Your task to perform on an android device: turn off smart reply in the gmail app Image 0: 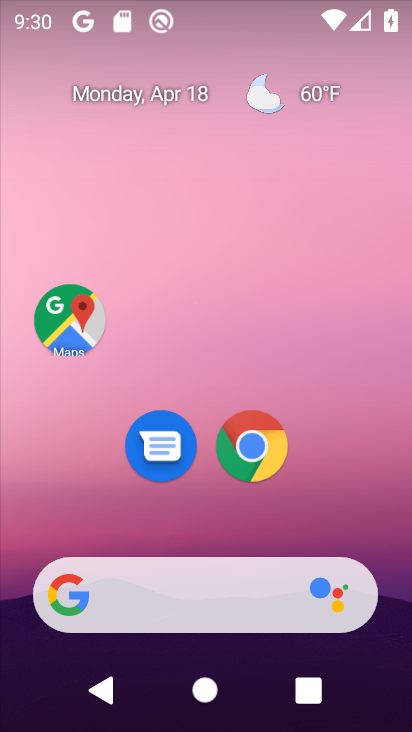
Step 0: drag from (345, 458) to (326, 115)
Your task to perform on an android device: turn off smart reply in the gmail app Image 1: 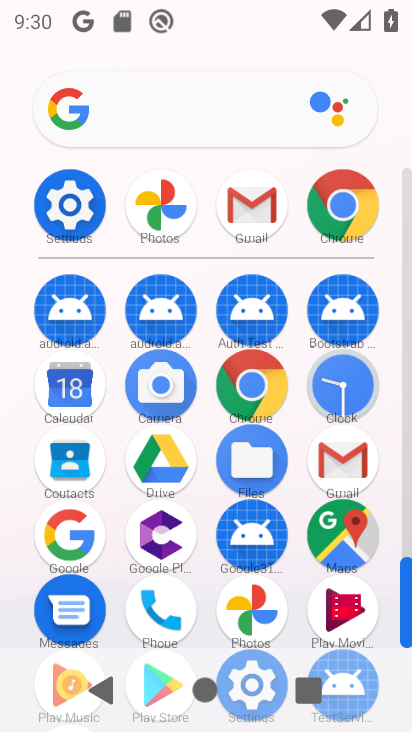
Step 1: click (347, 465)
Your task to perform on an android device: turn off smart reply in the gmail app Image 2: 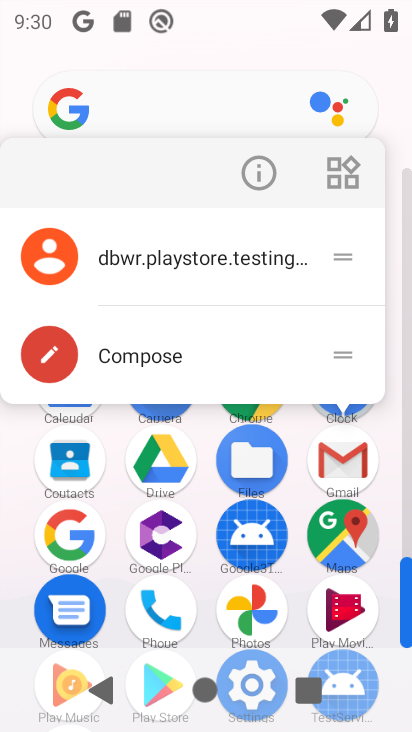
Step 2: click (336, 458)
Your task to perform on an android device: turn off smart reply in the gmail app Image 3: 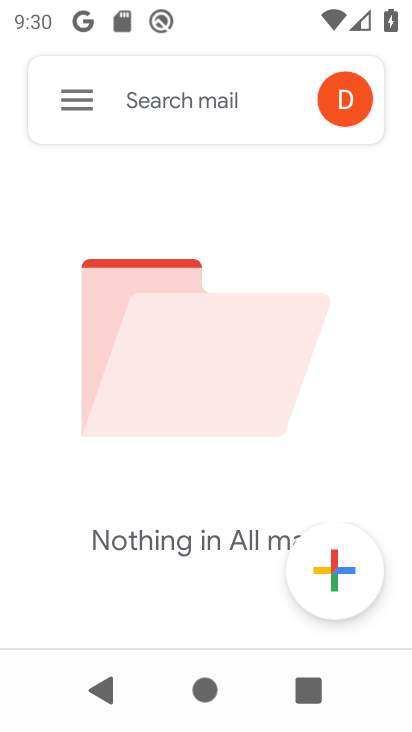
Step 3: click (69, 99)
Your task to perform on an android device: turn off smart reply in the gmail app Image 4: 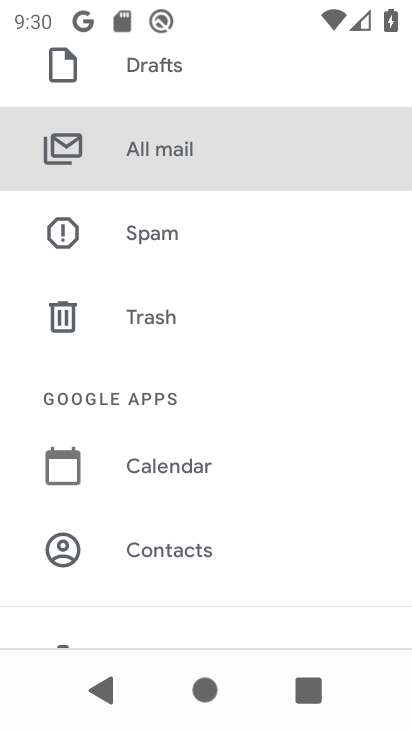
Step 4: drag from (337, 259) to (339, 527)
Your task to perform on an android device: turn off smart reply in the gmail app Image 5: 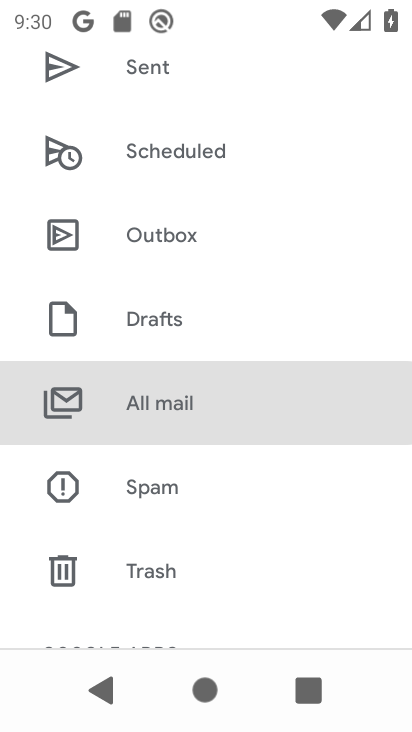
Step 5: drag from (337, 550) to (332, 347)
Your task to perform on an android device: turn off smart reply in the gmail app Image 6: 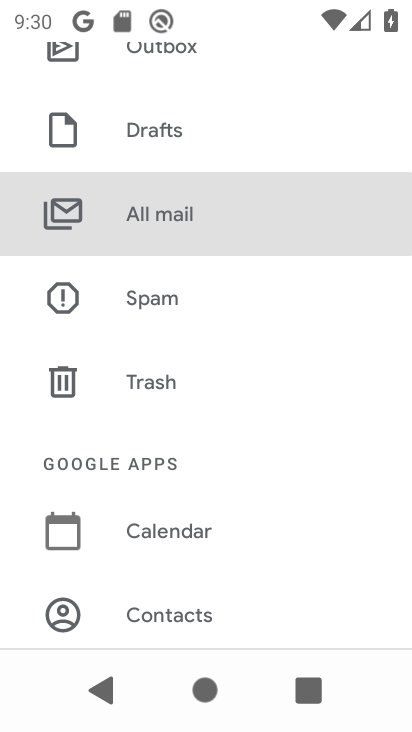
Step 6: drag from (334, 540) to (337, 322)
Your task to perform on an android device: turn off smart reply in the gmail app Image 7: 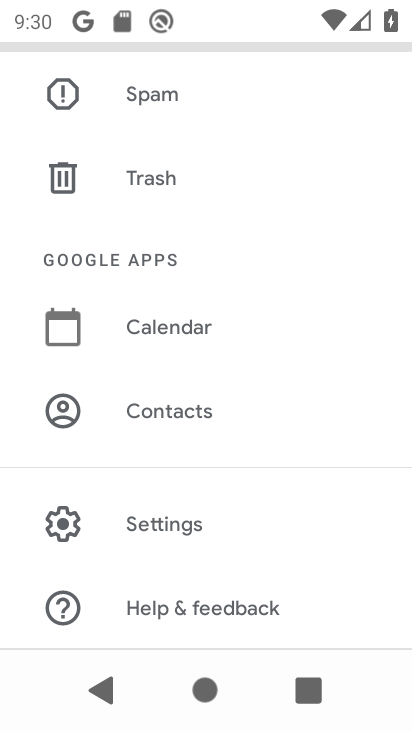
Step 7: click (177, 537)
Your task to perform on an android device: turn off smart reply in the gmail app Image 8: 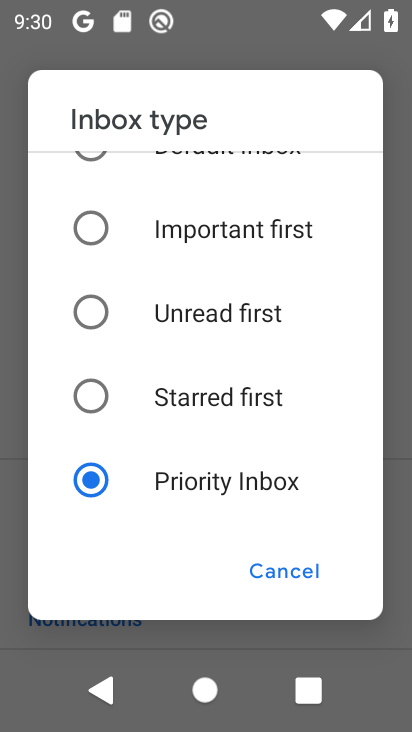
Step 8: click (299, 575)
Your task to perform on an android device: turn off smart reply in the gmail app Image 9: 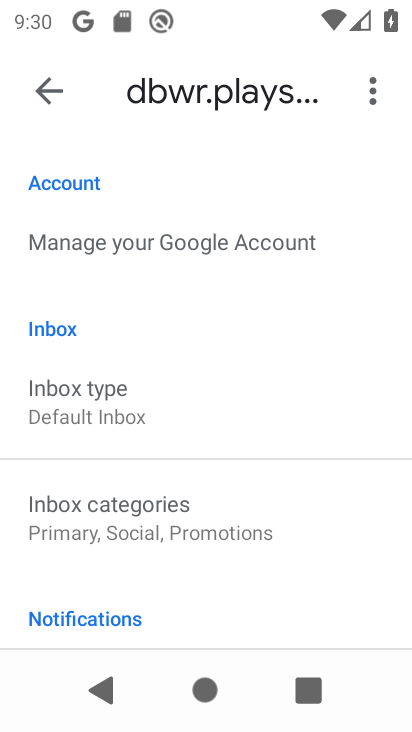
Step 9: drag from (341, 553) to (347, 367)
Your task to perform on an android device: turn off smart reply in the gmail app Image 10: 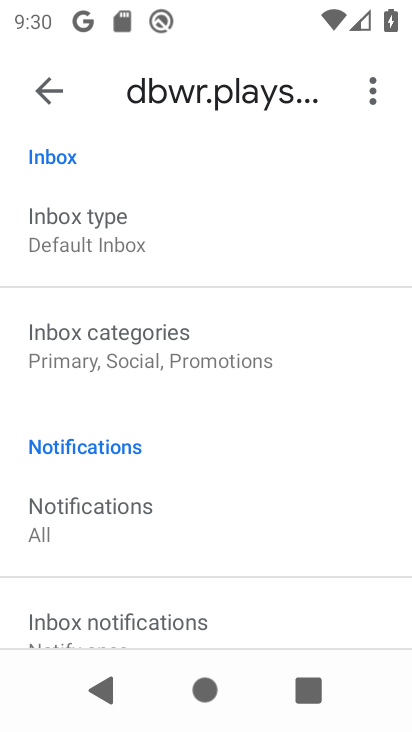
Step 10: drag from (357, 549) to (359, 398)
Your task to perform on an android device: turn off smart reply in the gmail app Image 11: 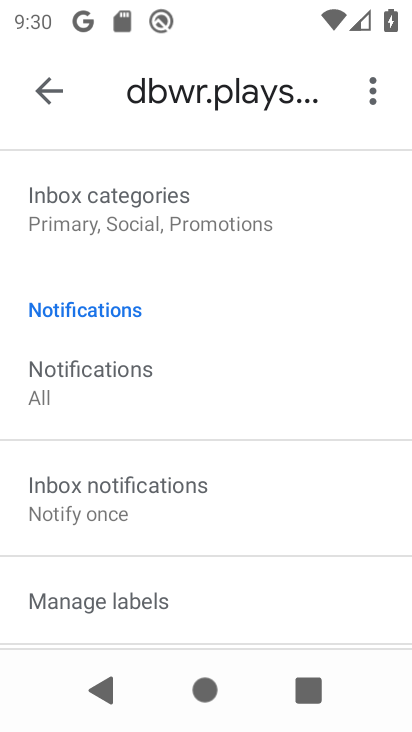
Step 11: drag from (352, 492) to (356, 357)
Your task to perform on an android device: turn off smart reply in the gmail app Image 12: 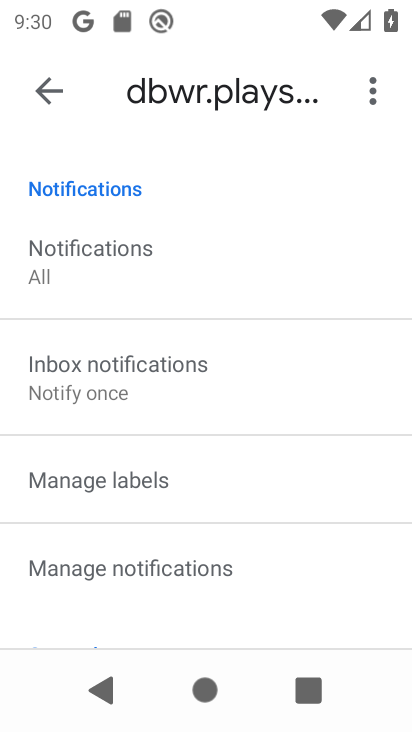
Step 12: drag from (343, 473) to (361, 239)
Your task to perform on an android device: turn off smart reply in the gmail app Image 13: 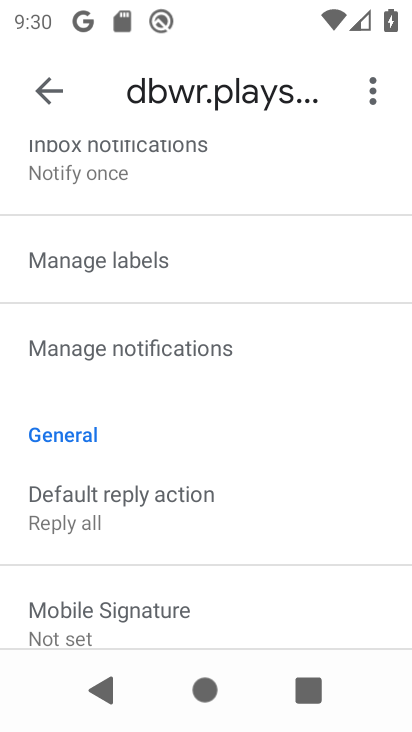
Step 13: drag from (333, 509) to (332, 299)
Your task to perform on an android device: turn off smart reply in the gmail app Image 14: 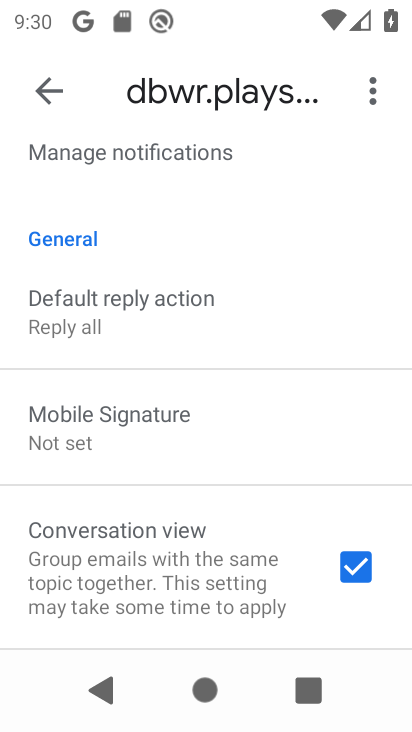
Step 14: drag from (315, 472) to (325, 320)
Your task to perform on an android device: turn off smart reply in the gmail app Image 15: 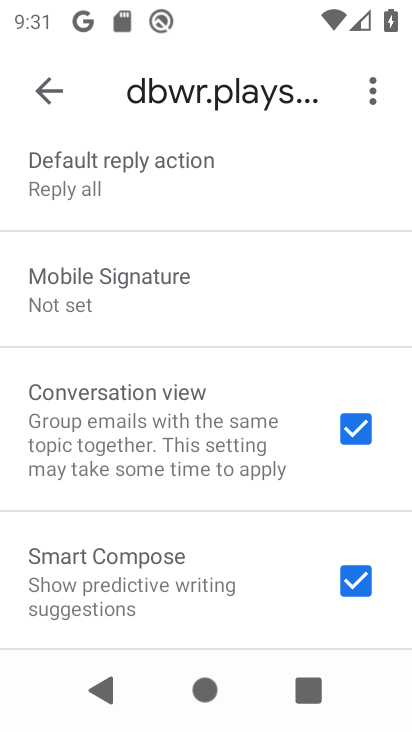
Step 15: drag from (285, 532) to (289, 362)
Your task to perform on an android device: turn off smart reply in the gmail app Image 16: 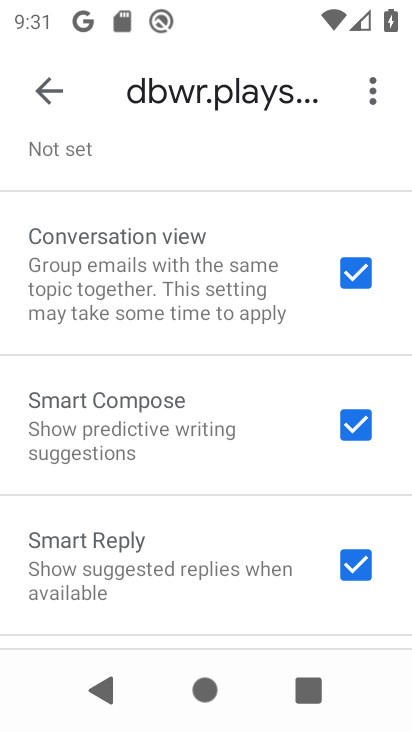
Step 16: drag from (276, 605) to (275, 369)
Your task to perform on an android device: turn off smart reply in the gmail app Image 17: 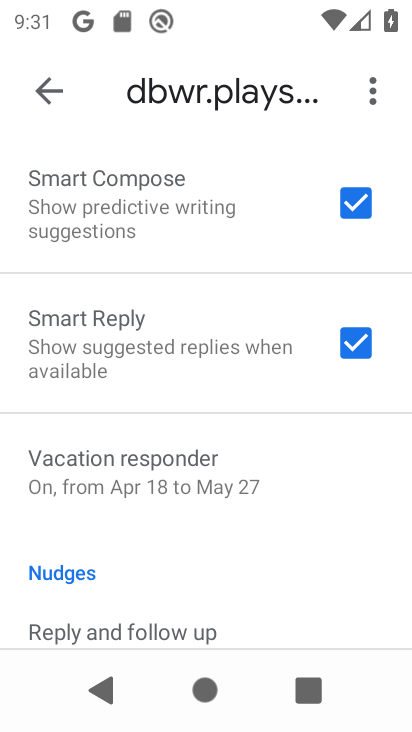
Step 17: click (349, 346)
Your task to perform on an android device: turn off smart reply in the gmail app Image 18: 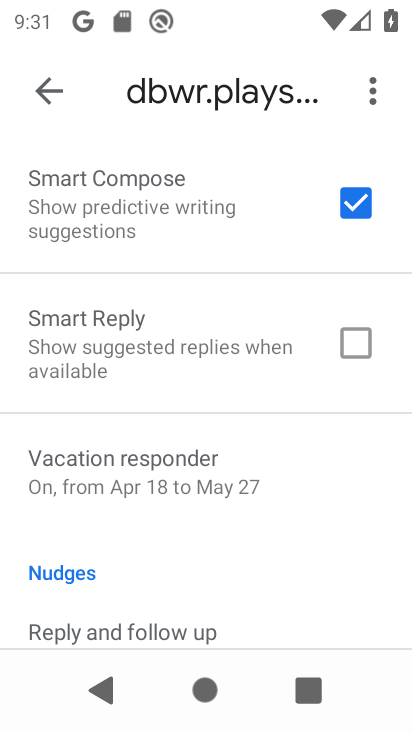
Step 18: task complete